Your task to perform on an android device: Is it going to rain today? Image 0: 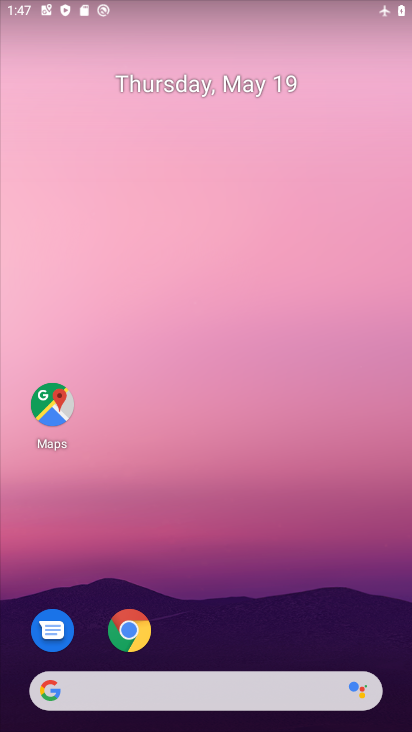
Step 0: click (230, 681)
Your task to perform on an android device: Is it going to rain today? Image 1: 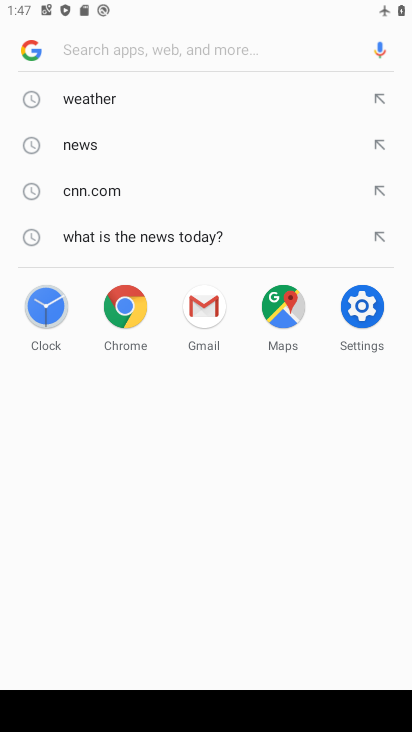
Step 1: click (81, 107)
Your task to perform on an android device: Is it going to rain today? Image 2: 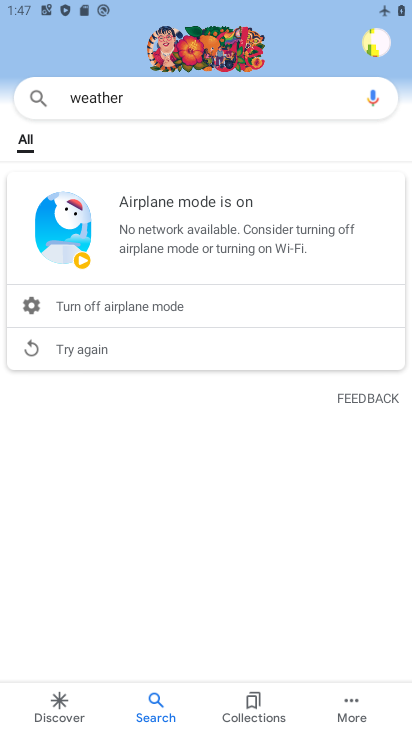
Step 2: task complete